Your task to perform on an android device: Open the calendar app, open the side menu, and click the "Day" option Image 0: 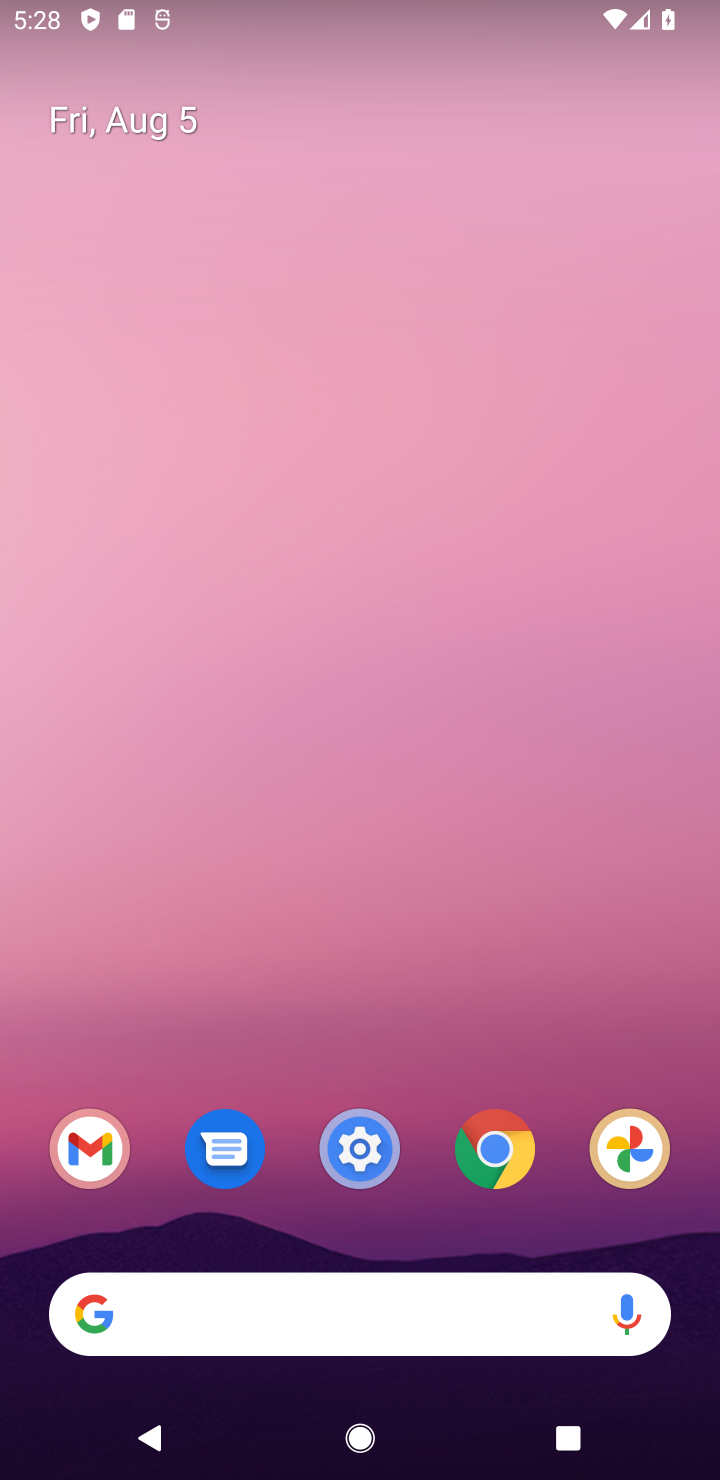
Step 0: drag from (329, 1002) to (269, 669)
Your task to perform on an android device: Open the calendar app, open the side menu, and click the "Day" option Image 1: 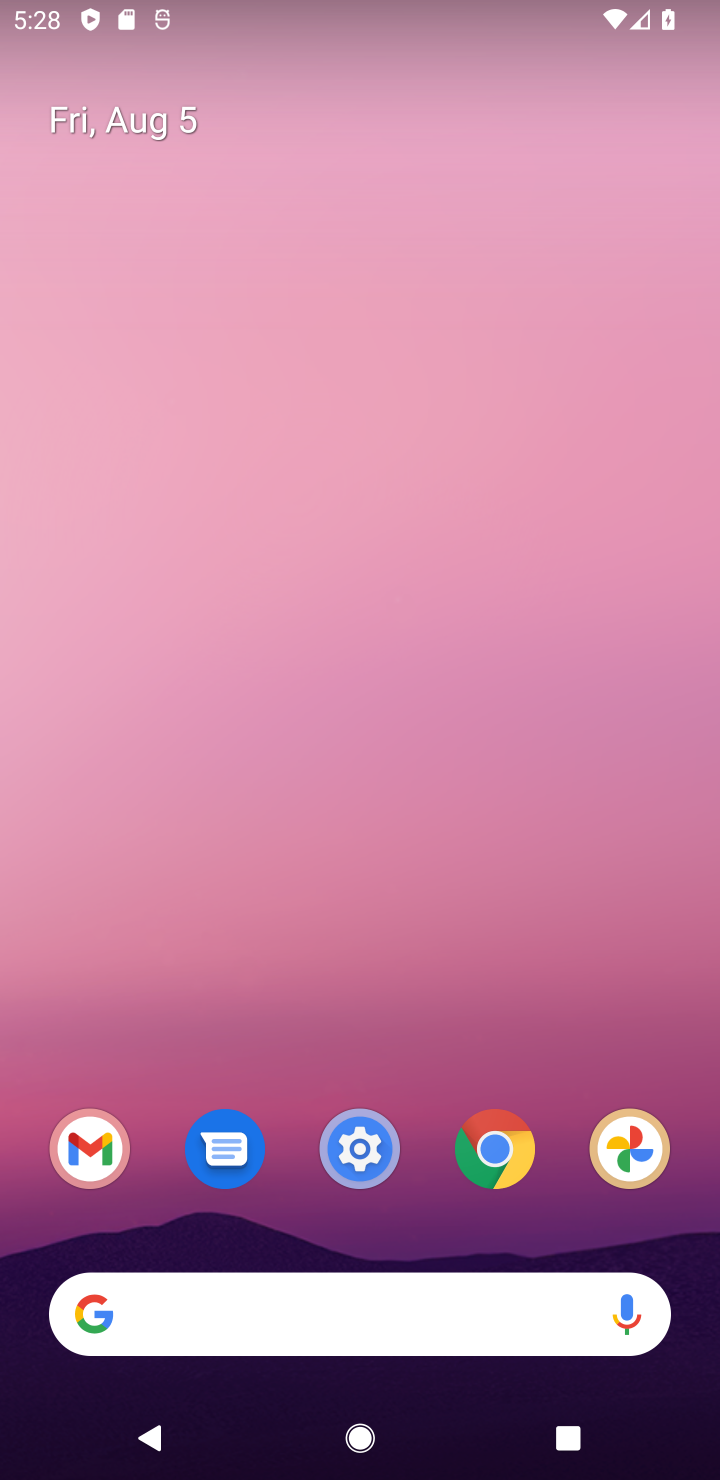
Step 1: drag from (162, 783) to (333, 0)
Your task to perform on an android device: Open the calendar app, open the side menu, and click the "Day" option Image 2: 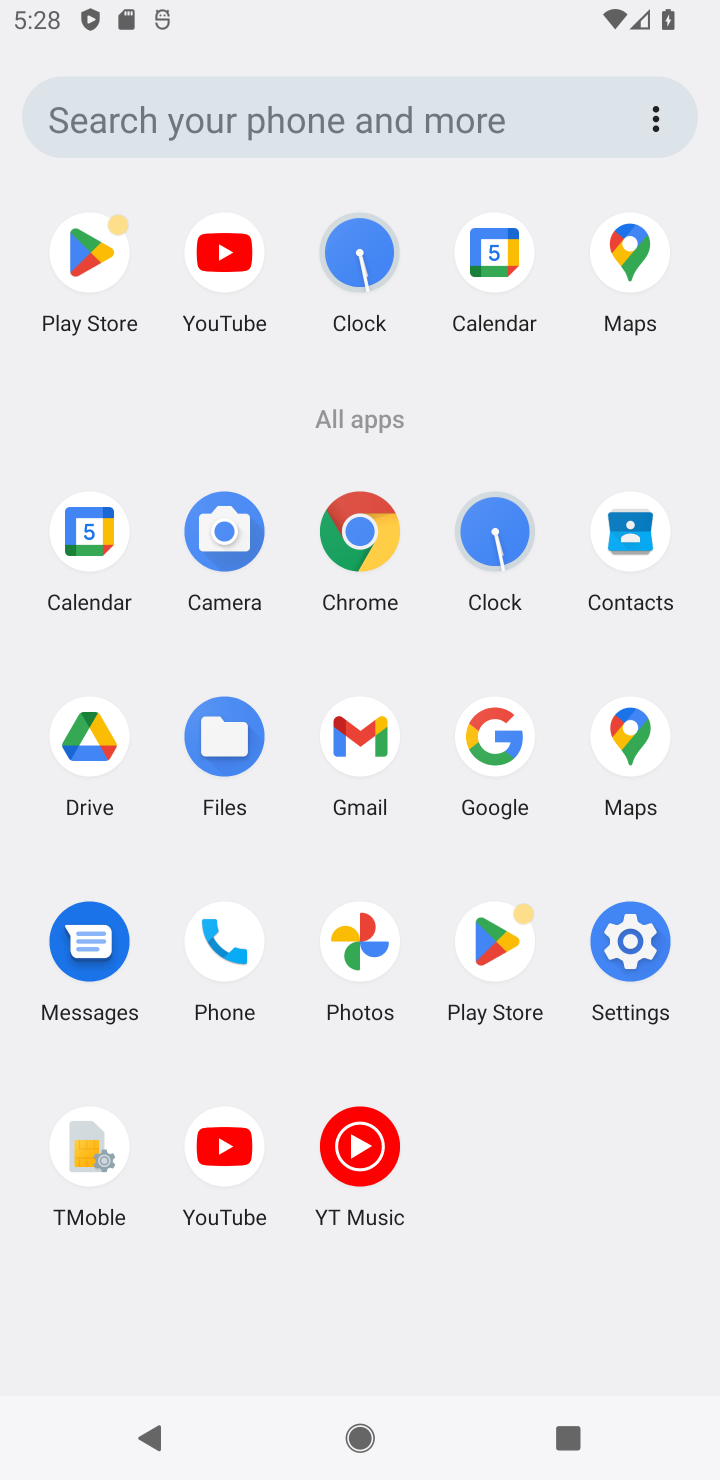
Step 2: click (482, 249)
Your task to perform on an android device: Open the calendar app, open the side menu, and click the "Day" option Image 3: 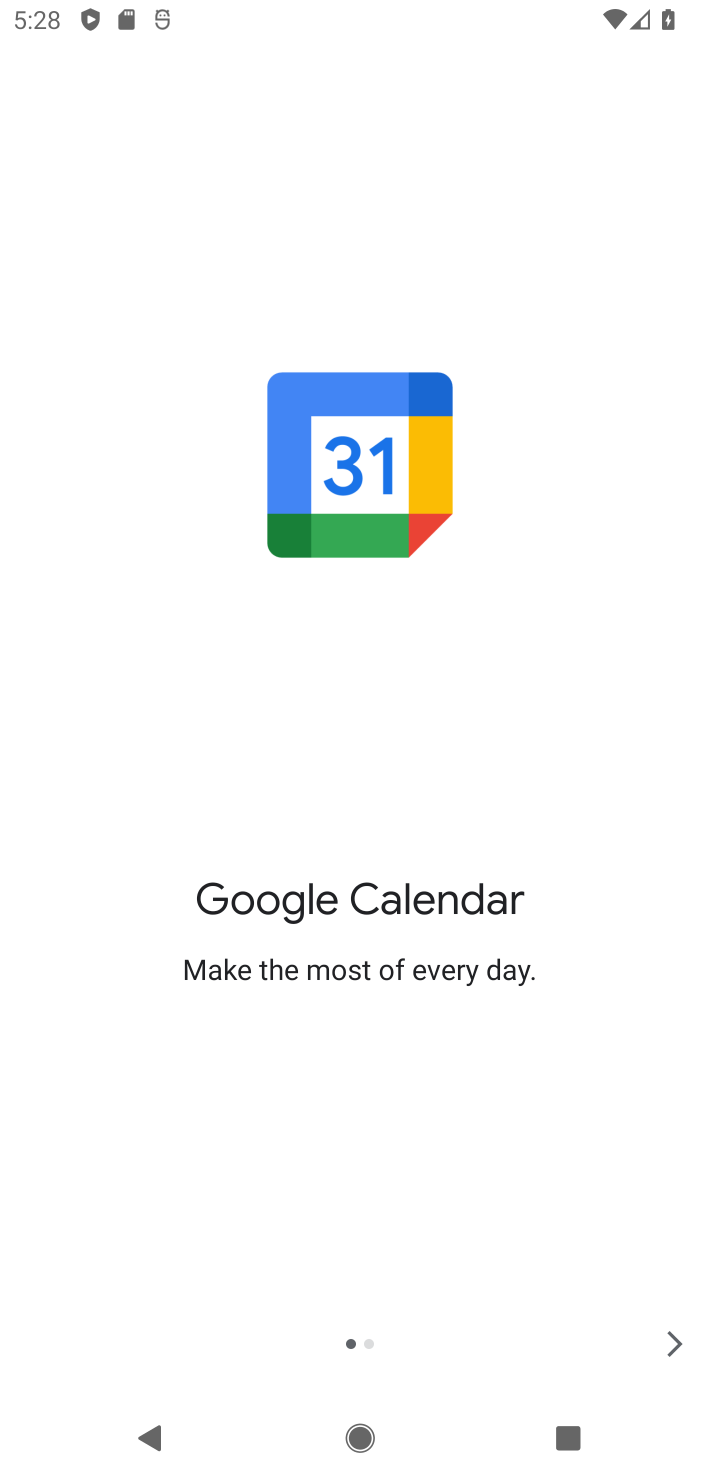
Step 3: click (668, 1347)
Your task to perform on an android device: Open the calendar app, open the side menu, and click the "Day" option Image 4: 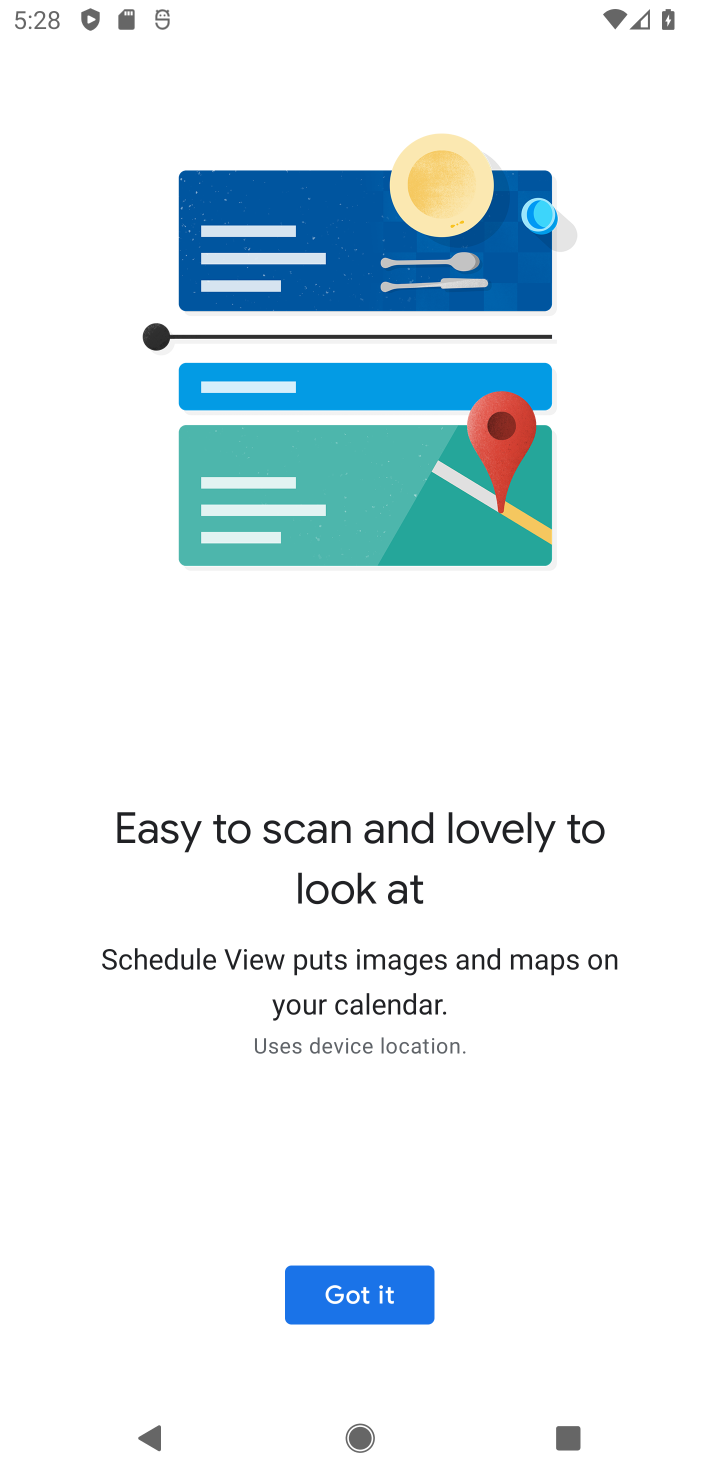
Step 4: click (324, 1305)
Your task to perform on an android device: Open the calendar app, open the side menu, and click the "Day" option Image 5: 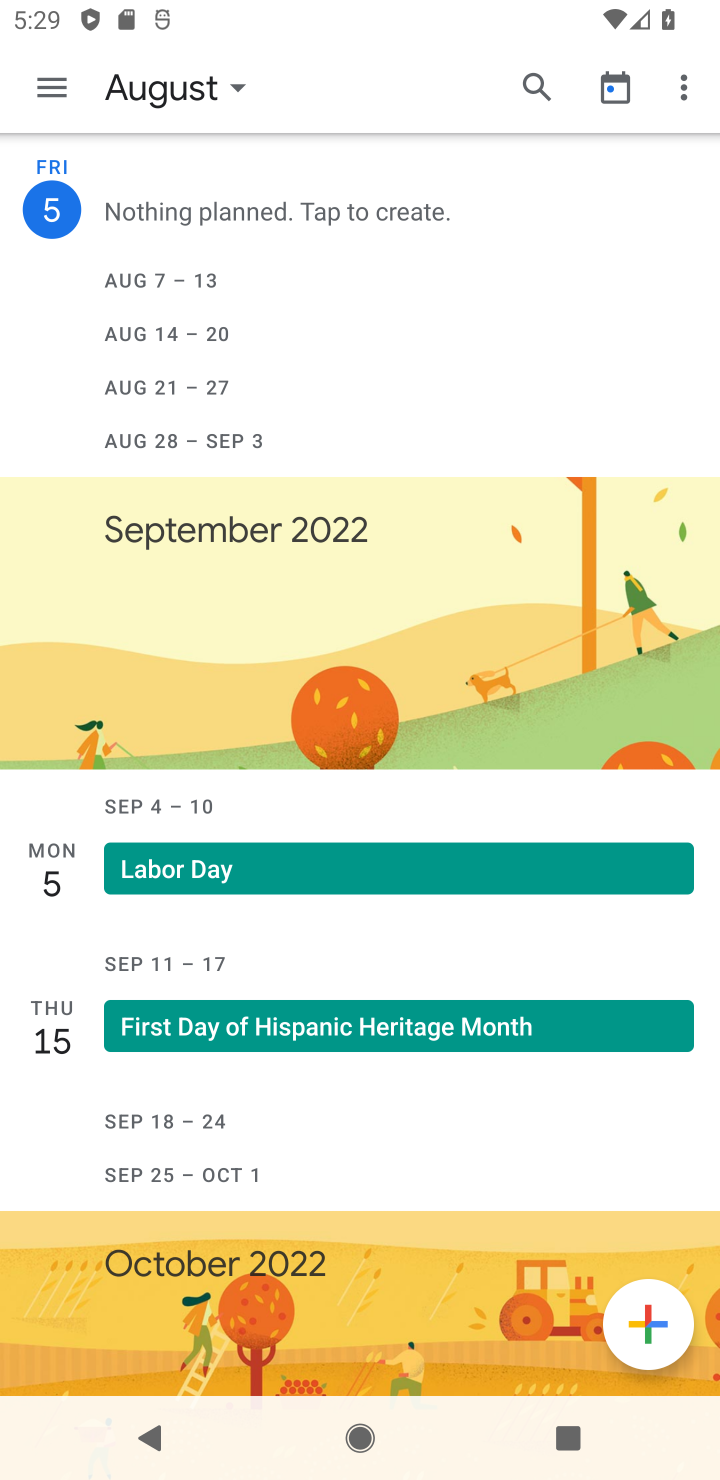
Step 5: click (43, 83)
Your task to perform on an android device: Open the calendar app, open the side menu, and click the "Day" option Image 6: 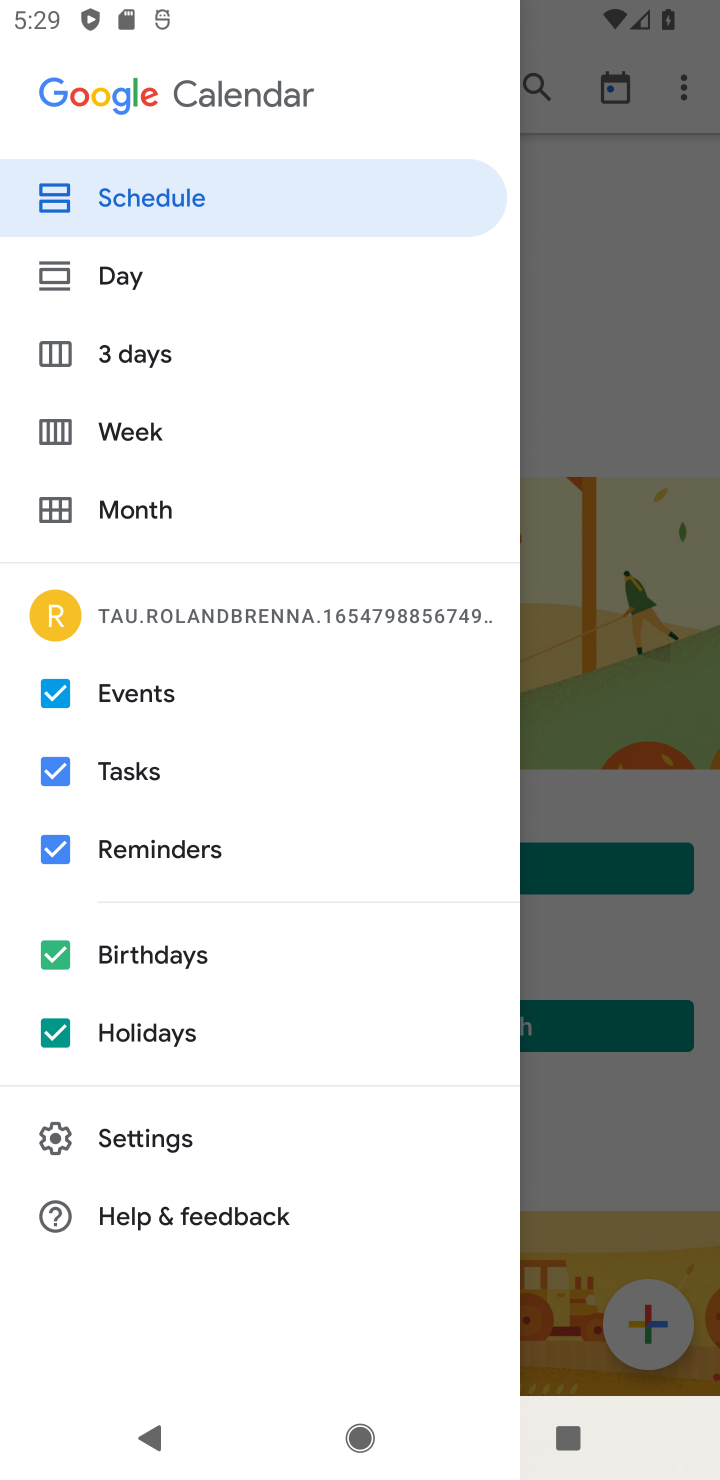
Step 6: click (136, 289)
Your task to perform on an android device: Open the calendar app, open the side menu, and click the "Day" option Image 7: 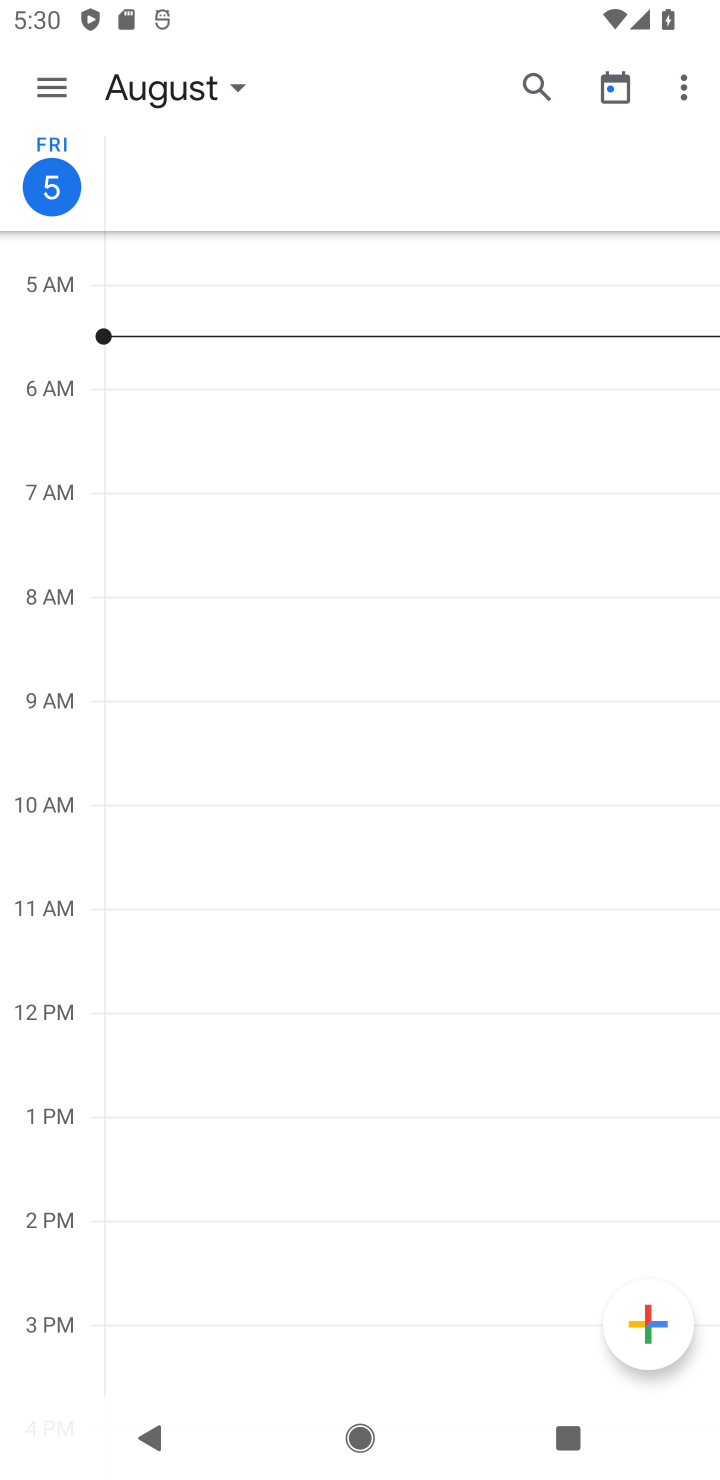
Step 7: task complete